Your task to perform on an android device: open chrome privacy settings Image 0: 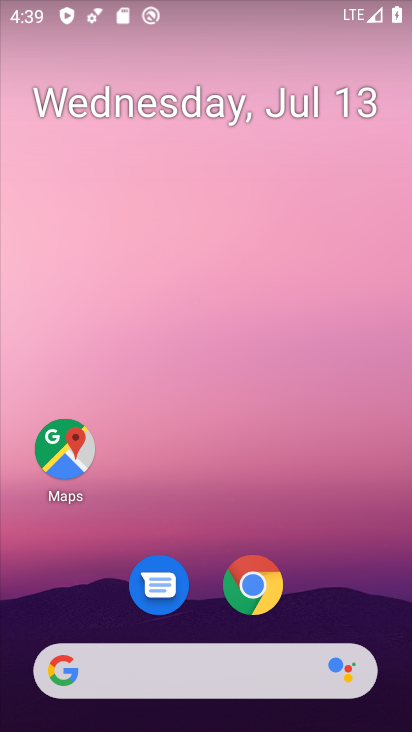
Step 0: click (241, 593)
Your task to perform on an android device: open chrome privacy settings Image 1: 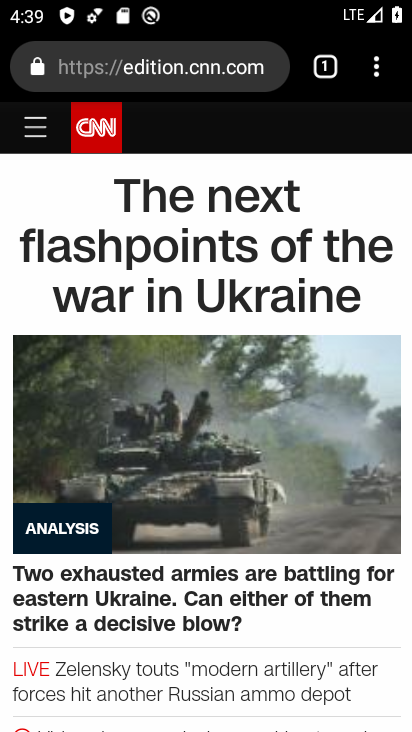
Step 1: click (385, 80)
Your task to perform on an android device: open chrome privacy settings Image 2: 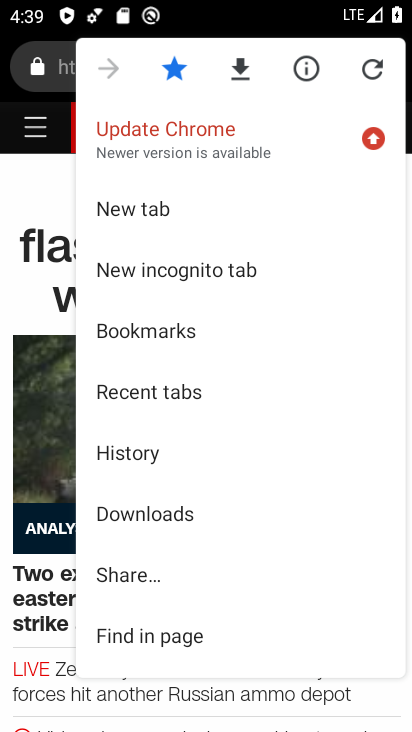
Step 2: drag from (208, 591) to (231, 379)
Your task to perform on an android device: open chrome privacy settings Image 3: 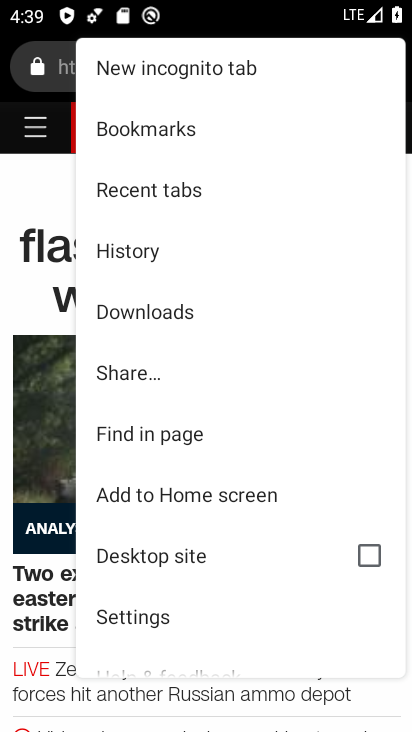
Step 3: click (159, 616)
Your task to perform on an android device: open chrome privacy settings Image 4: 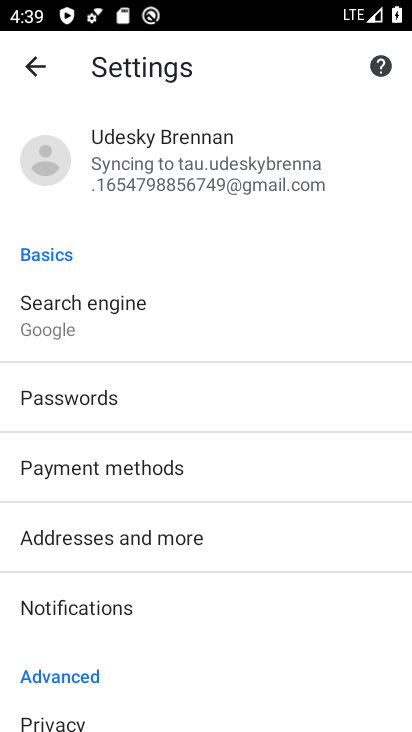
Step 4: drag from (211, 612) to (252, 462)
Your task to perform on an android device: open chrome privacy settings Image 5: 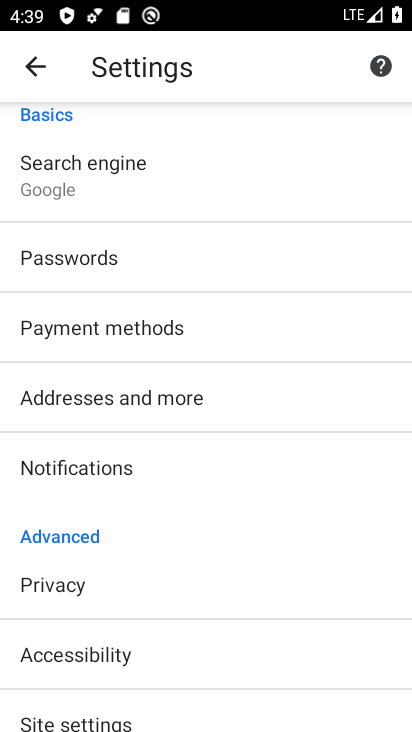
Step 5: click (181, 598)
Your task to perform on an android device: open chrome privacy settings Image 6: 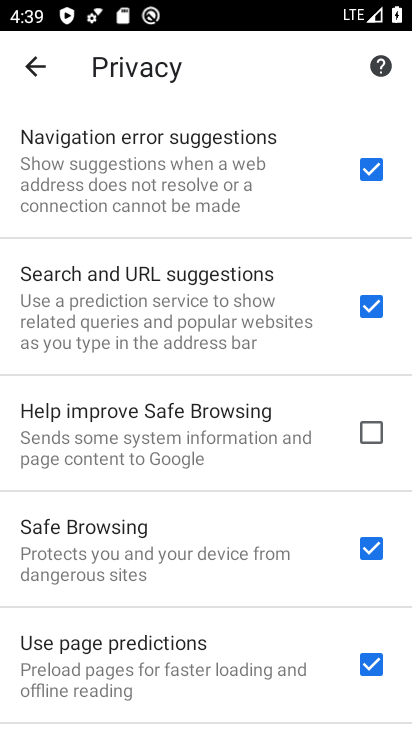
Step 6: task complete